Your task to perform on an android device: install app "Etsy: Buy & Sell Unique Items" Image 0: 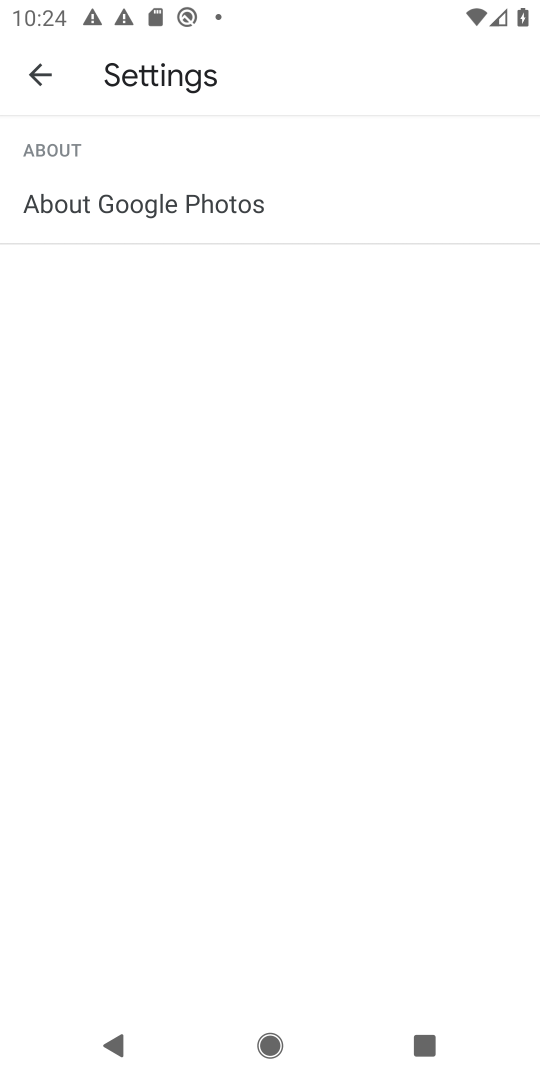
Step 0: press home button
Your task to perform on an android device: install app "Etsy: Buy & Sell Unique Items" Image 1: 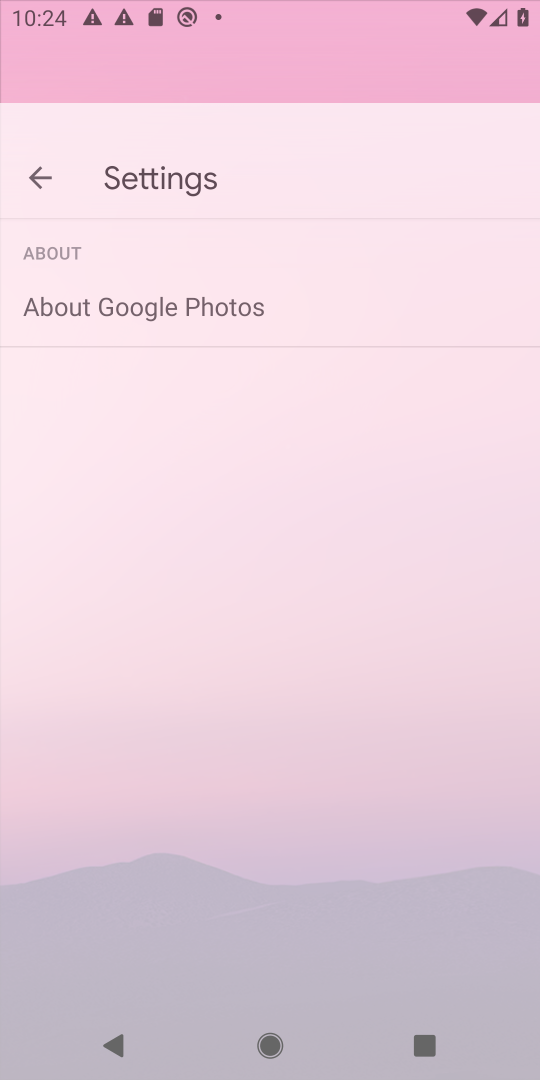
Step 1: drag from (251, 948) to (314, 99)
Your task to perform on an android device: install app "Etsy: Buy & Sell Unique Items" Image 2: 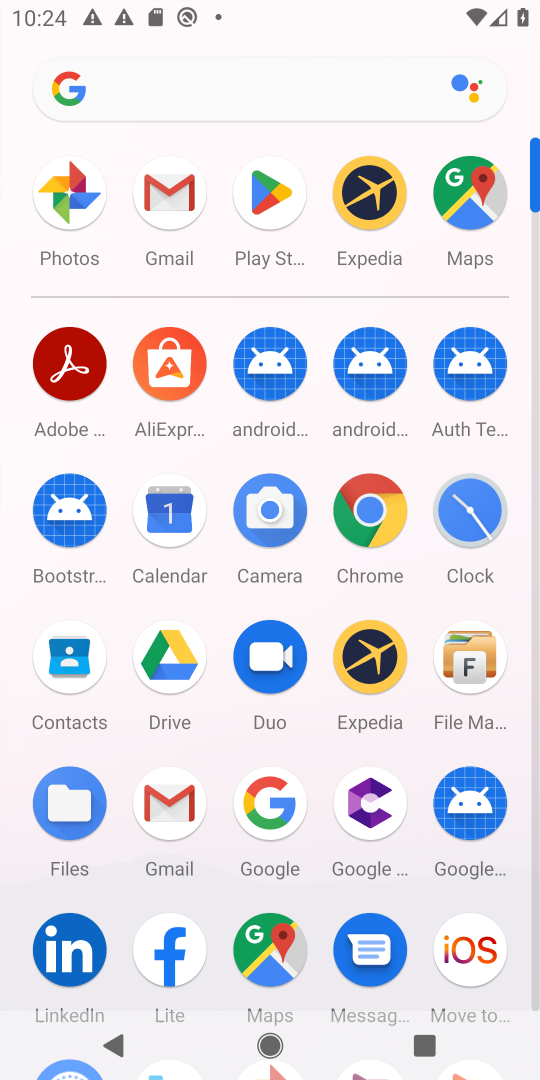
Step 2: click (280, 157)
Your task to perform on an android device: install app "Etsy: Buy & Sell Unique Items" Image 3: 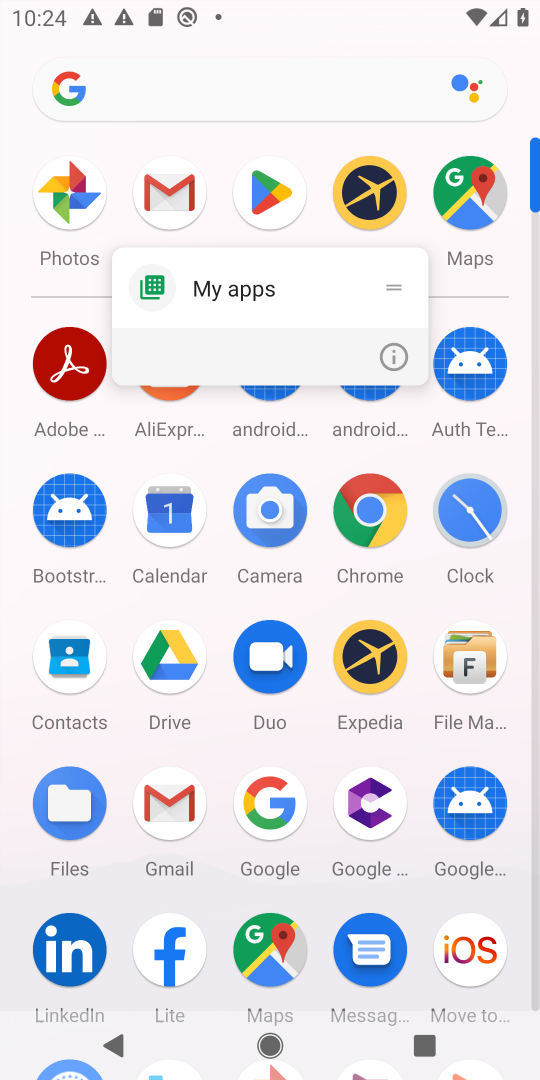
Step 3: click (400, 347)
Your task to perform on an android device: install app "Etsy: Buy & Sell Unique Items" Image 4: 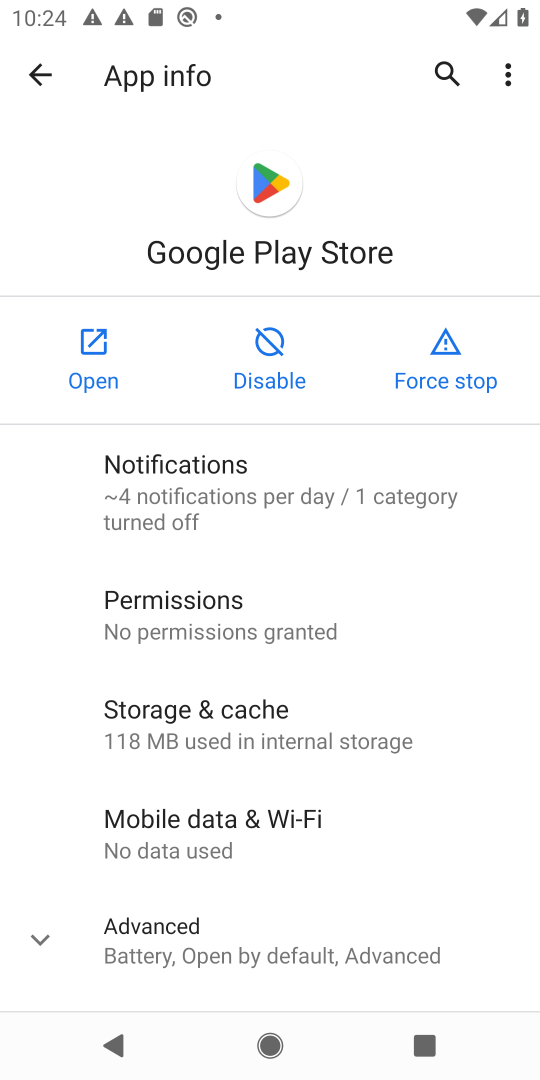
Step 4: click (100, 337)
Your task to perform on an android device: install app "Etsy: Buy & Sell Unique Items" Image 5: 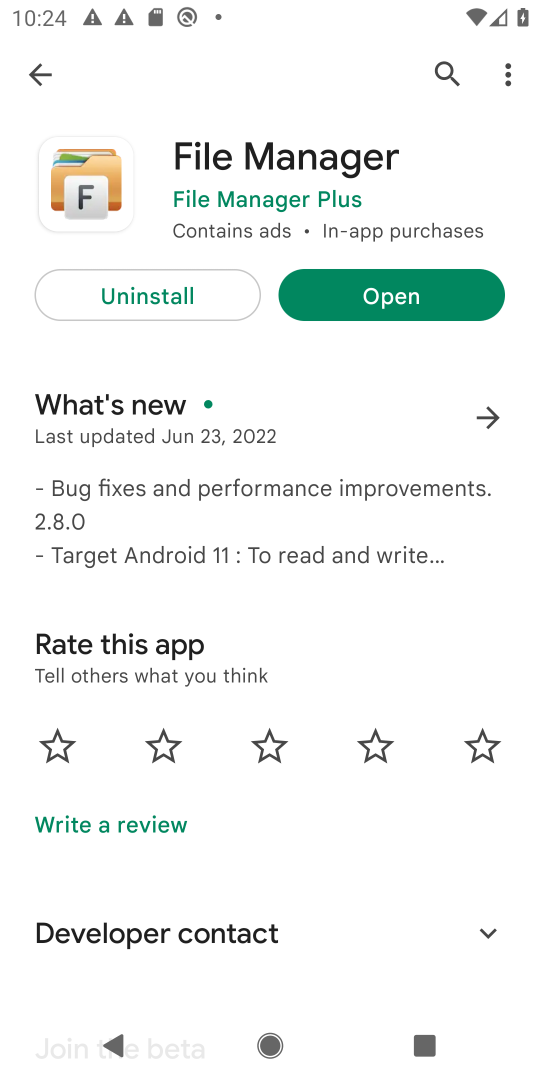
Step 5: click (462, 83)
Your task to perform on an android device: install app "Etsy: Buy & Sell Unique Items" Image 6: 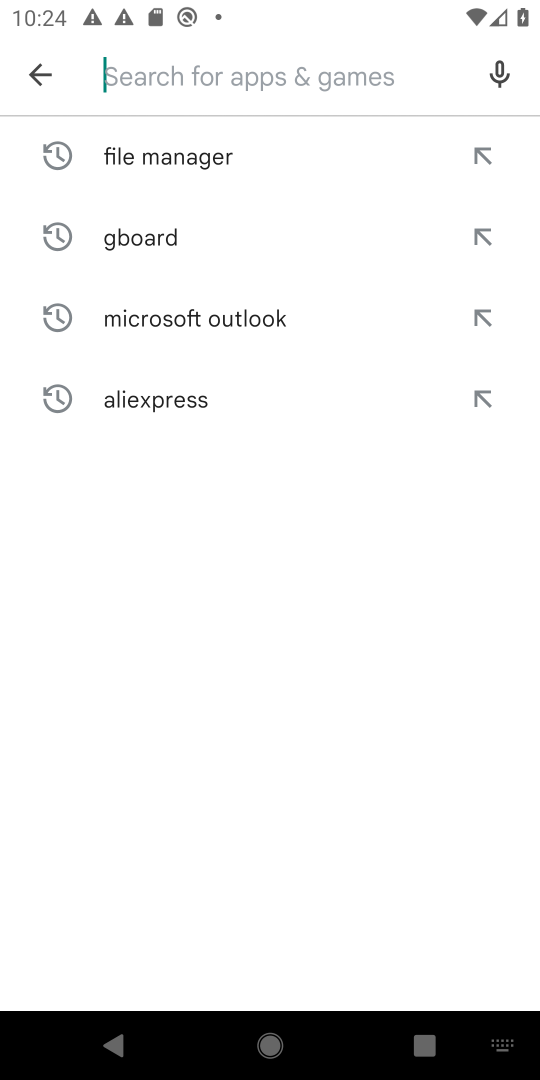
Step 6: type "Etsy: Buy & Sell Unique Items"
Your task to perform on an android device: install app "Etsy: Buy & Sell Unique Items" Image 7: 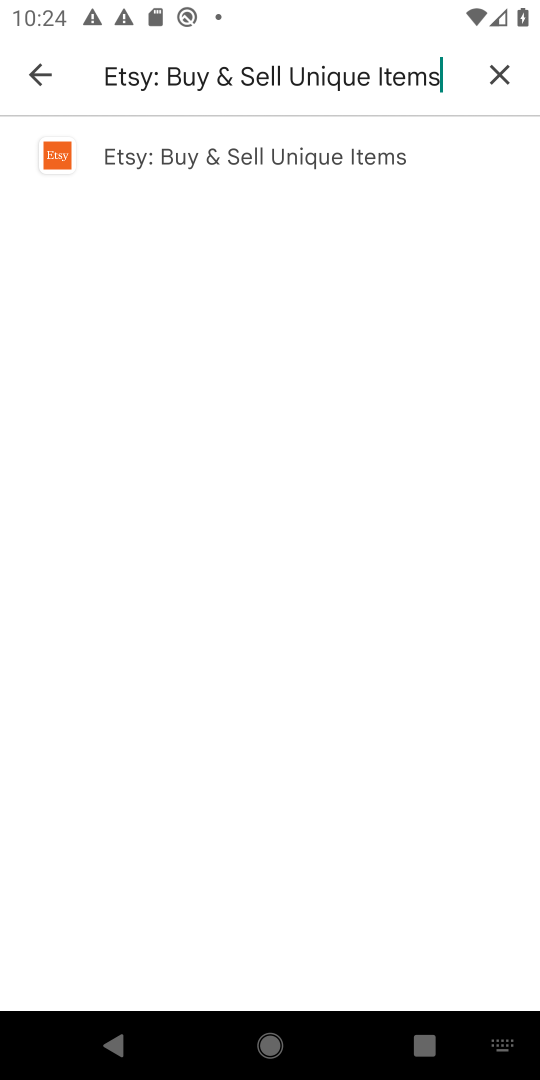
Step 7: click (231, 177)
Your task to perform on an android device: install app "Etsy: Buy & Sell Unique Items" Image 8: 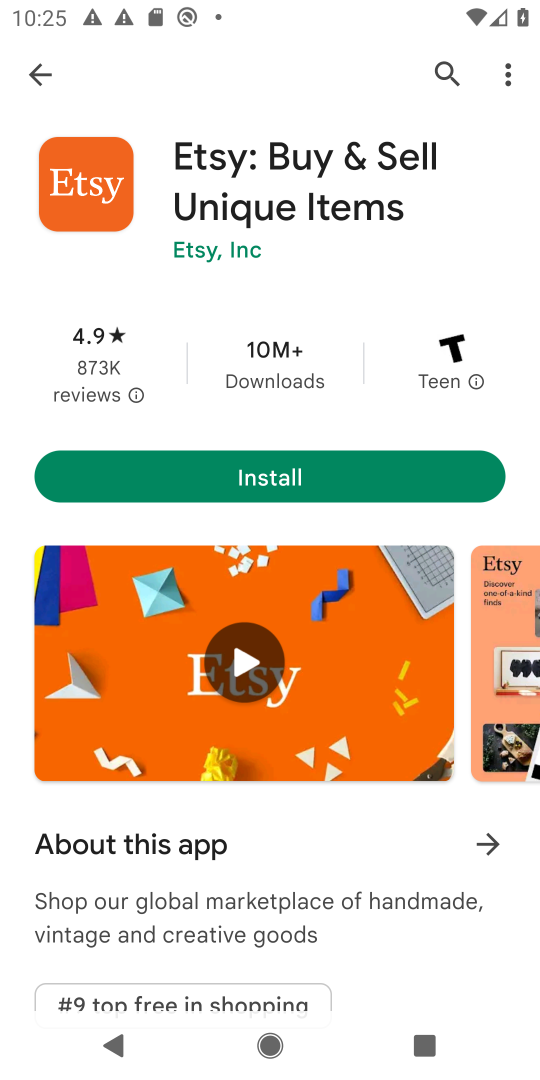
Step 8: click (180, 485)
Your task to perform on an android device: install app "Etsy: Buy & Sell Unique Items" Image 9: 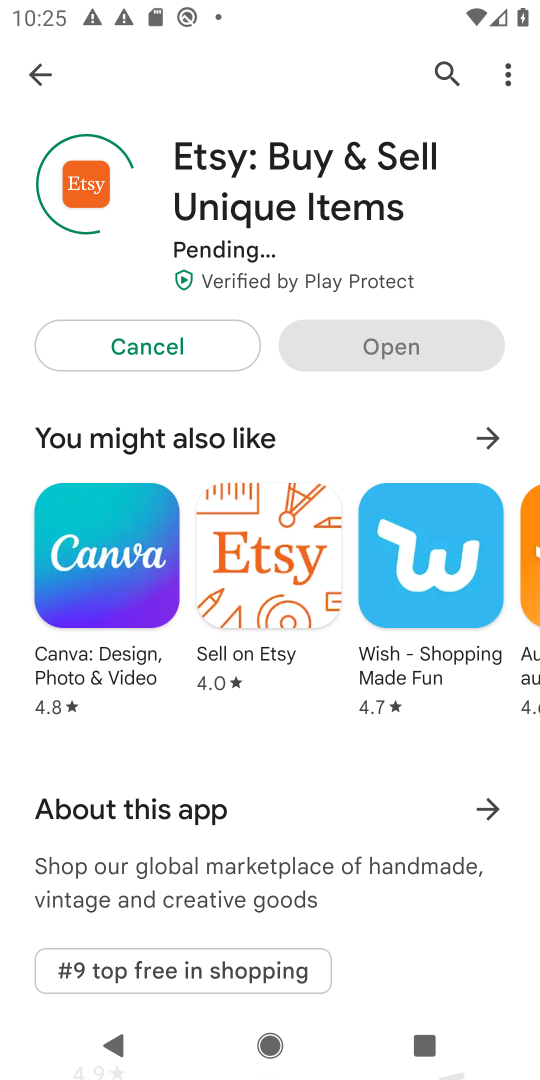
Step 9: task complete